Your task to perform on an android device: toggle notifications settings in the gmail app Image 0: 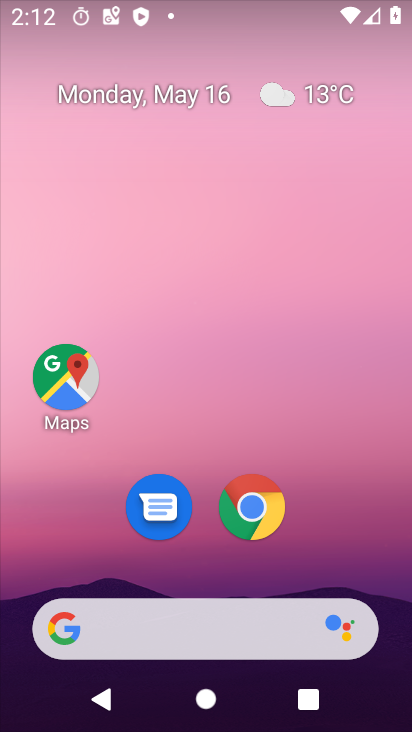
Step 0: drag from (348, 554) to (330, 102)
Your task to perform on an android device: toggle notifications settings in the gmail app Image 1: 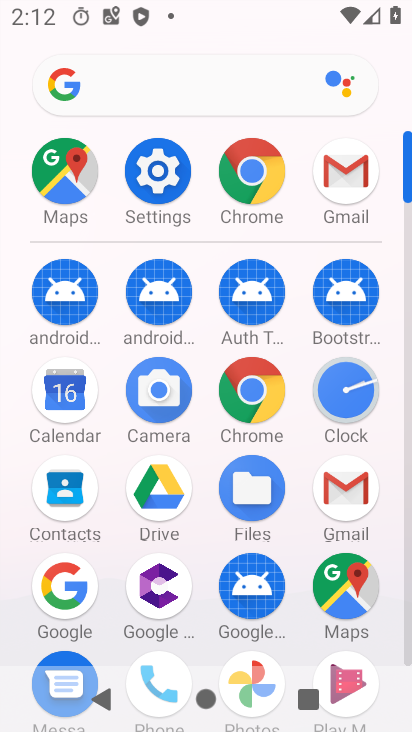
Step 1: click (358, 500)
Your task to perform on an android device: toggle notifications settings in the gmail app Image 2: 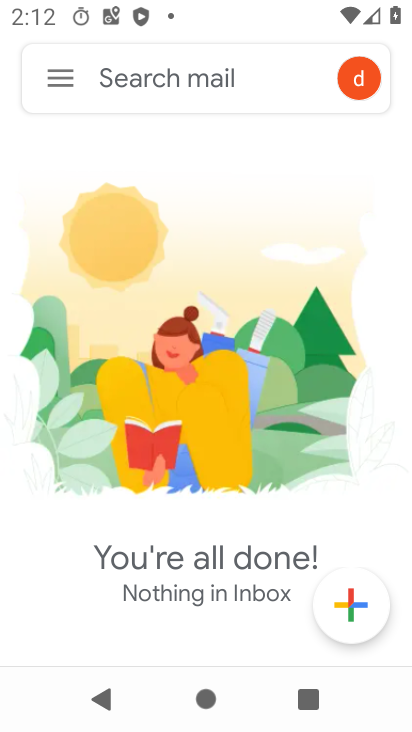
Step 2: click (56, 71)
Your task to perform on an android device: toggle notifications settings in the gmail app Image 3: 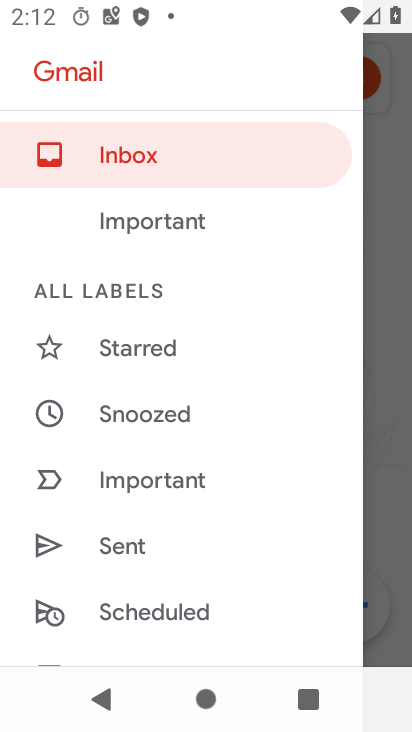
Step 3: drag from (285, 604) to (284, 442)
Your task to perform on an android device: toggle notifications settings in the gmail app Image 4: 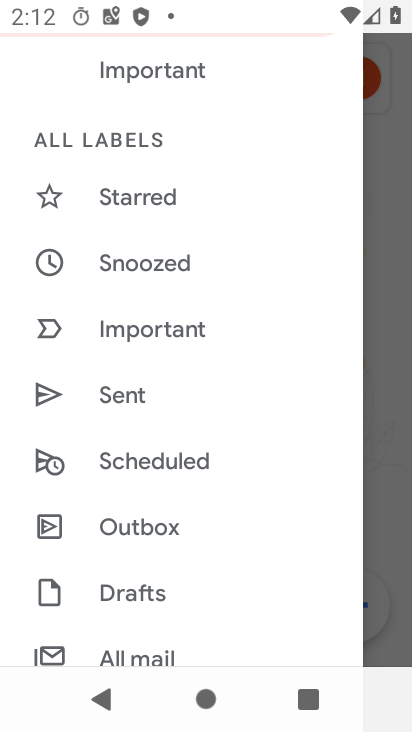
Step 4: drag from (295, 614) to (288, 465)
Your task to perform on an android device: toggle notifications settings in the gmail app Image 5: 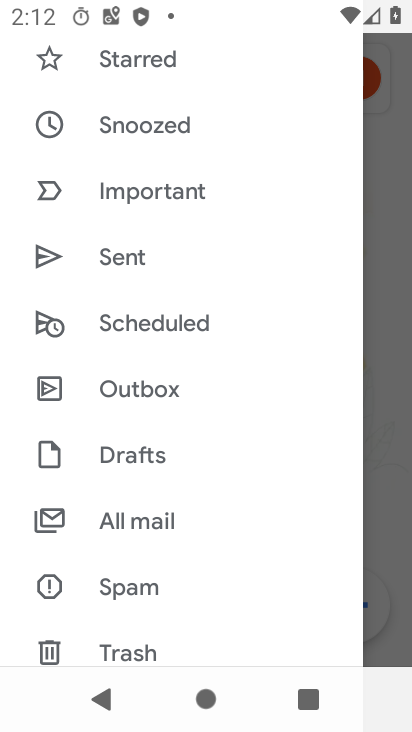
Step 5: drag from (264, 615) to (262, 432)
Your task to perform on an android device: toggle notifications settings in the gmail app Image 6: 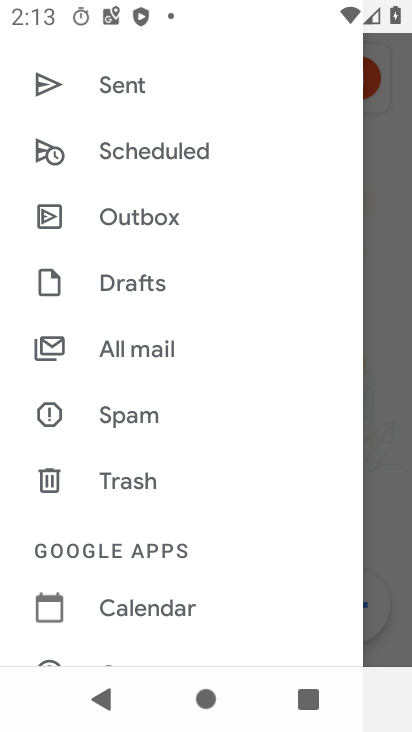
Step 6: drag from (315, 552) to (307, 361)
Your task to perform on an android device: toggle notifications settings in the gmail app Image 7: 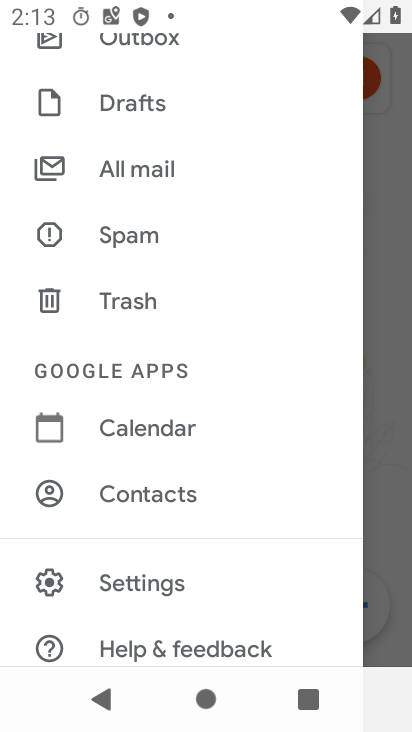
Step 7: click (212, 590)
Your task to perform on an android device: toggle notifications settings in the gmail app Image 8: 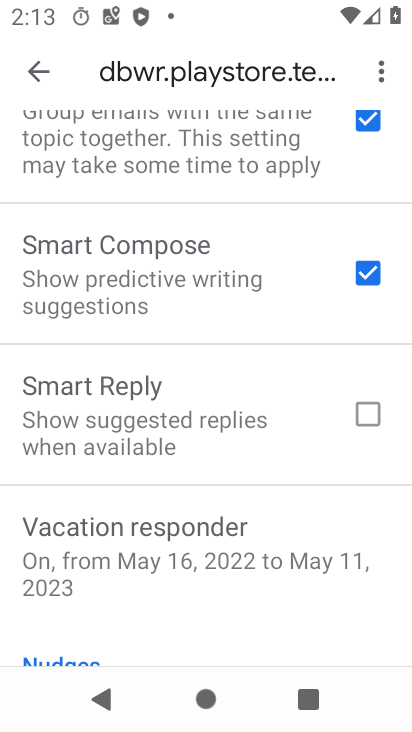
Step 8: drag from (295, 392) to (298, 444)
Your task to perform on an android device: toggle notifications settings in the gmail app Image 9: 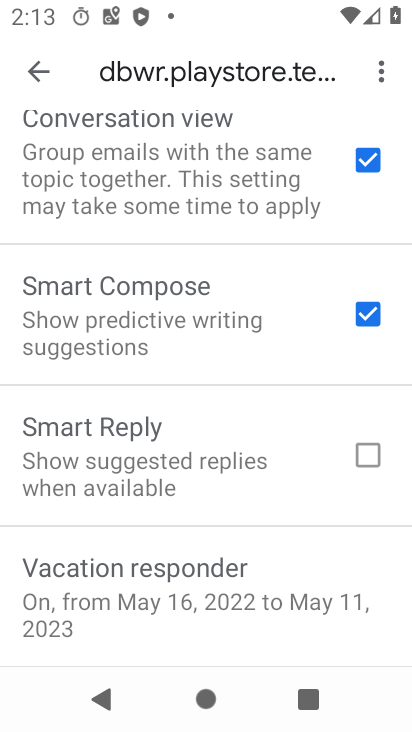
Step 9: drag from (313, 284) to (314, 426)
Your task to perform on an android device: toggle notifications settings in the gmail app Image 10: 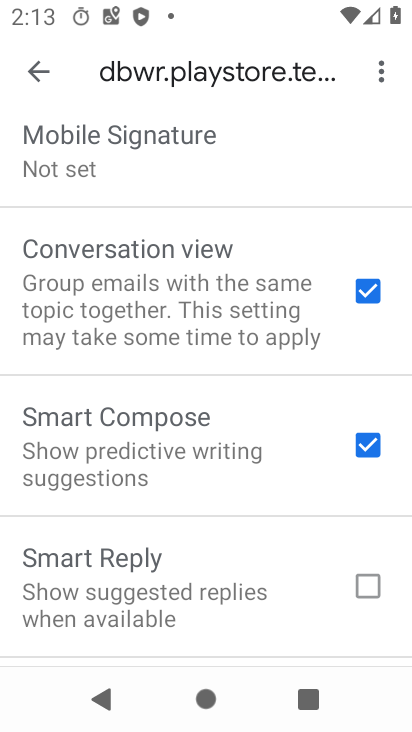
Step 10: drag from (283, 233) to (286, 326)
Your task to perform on an android device: toggle notifications settings in the gmail app Image 11: 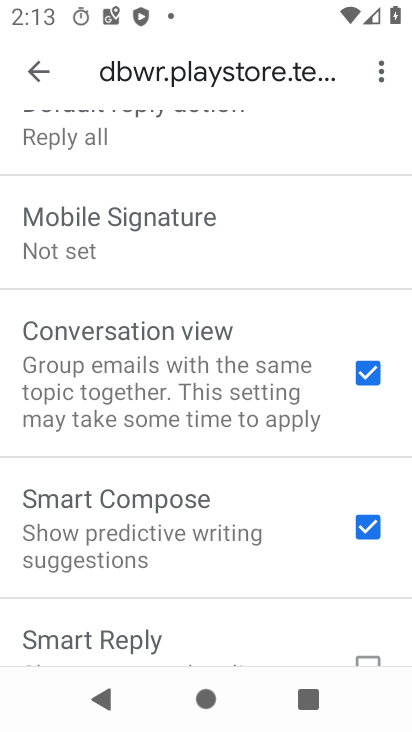
Step 11: drag from (294, 217) to (290, 341)
Your task to perform on an android device: toggle notifications settings in the gmail app Image 12: 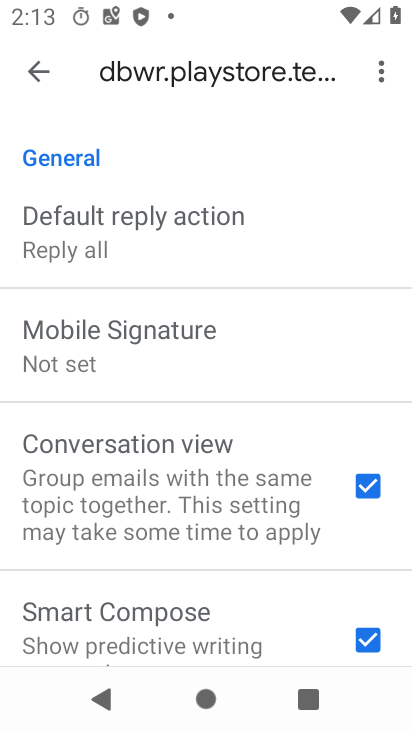
Step 12: drag from (292, 197) to (295, 352)
Your task to perform on an android device: toggle notifications settings in the gmail app Image 13: 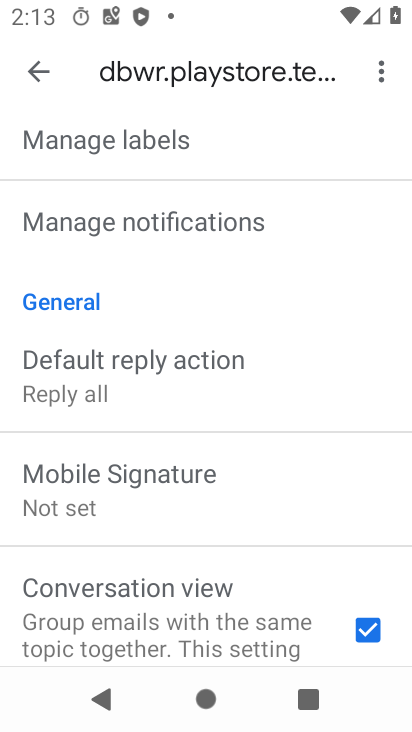
Step 13: drag from (295, 202) to (294, 350)
Your task to perform on an android device: toggle notifications settings in the gmail app Image 14: 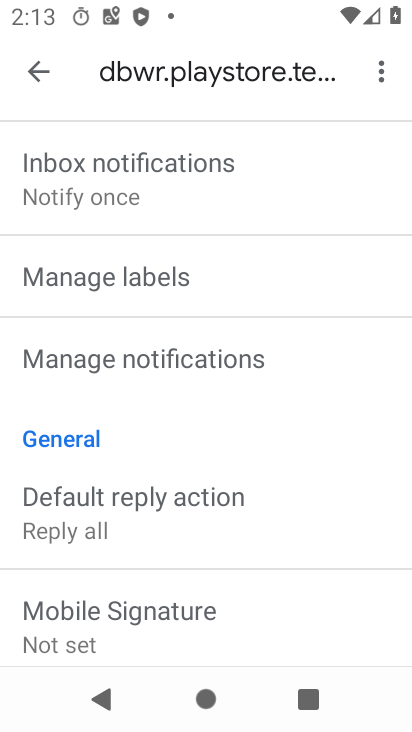
Step 14: drag from (299, 230) to (308, 316)
Your task to perform on an android device: toggle notifications settings in the gmail app Image 15: 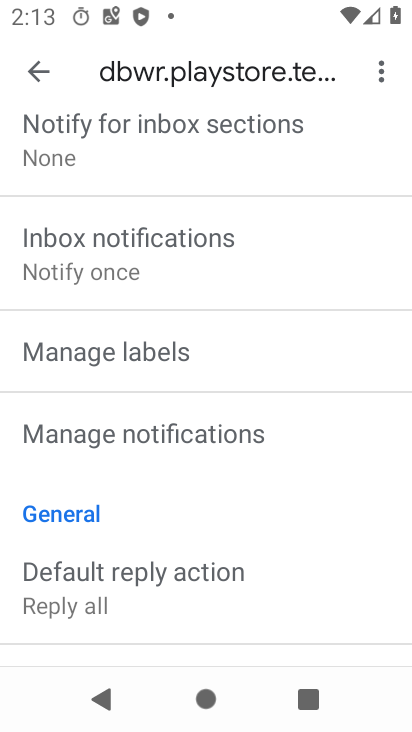
Step 15: click (259, 456)
Your task to perform on an android device: toggle notifications settings in the gmail app Image 16: 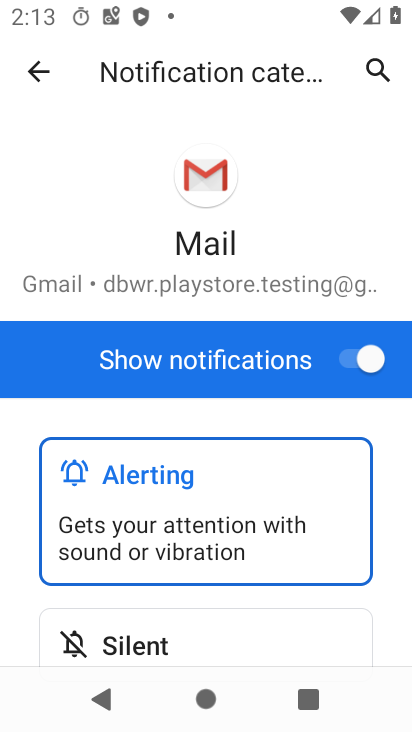
Step 16: click (347, 361)
Your task to perform on an android device: toggle notifications settings in the gmail app Image 17: 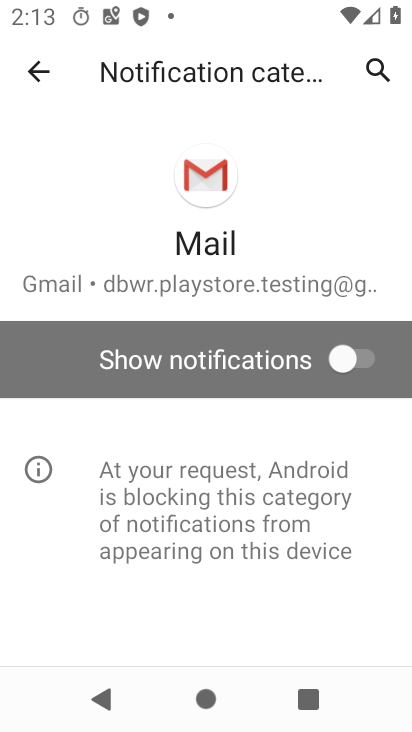
Step 17: task complete